Your task to perform on an android device: open app "Adobe Express: Graphic Design" (install if not already installed) Image 0: 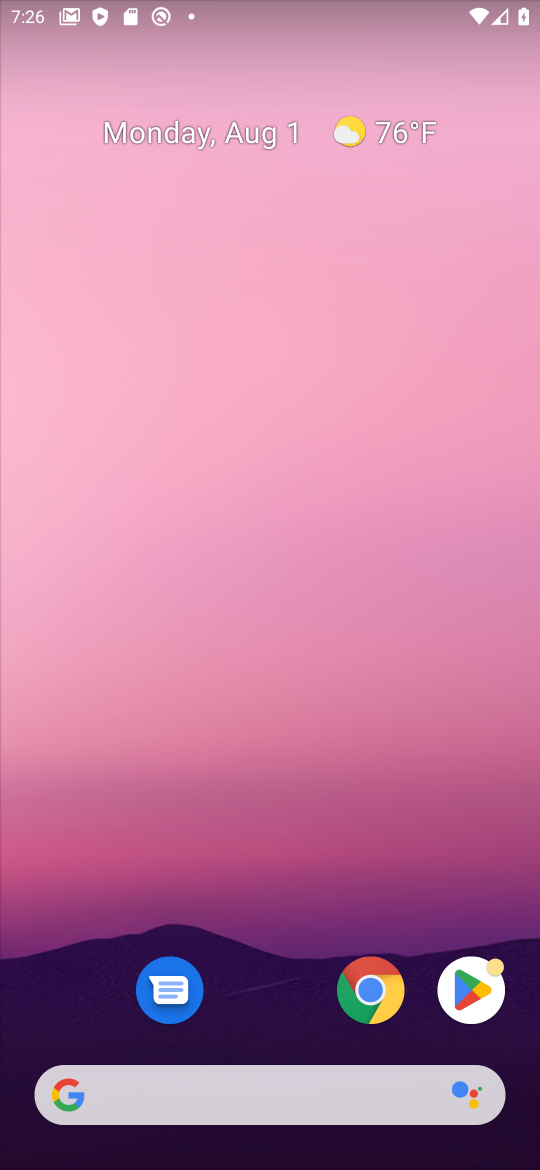
Step 0: click (470, 1012)
Your task to perform on an android device: open app "Adobe Express: Graphic Design" (install if not already installed) Image 1: 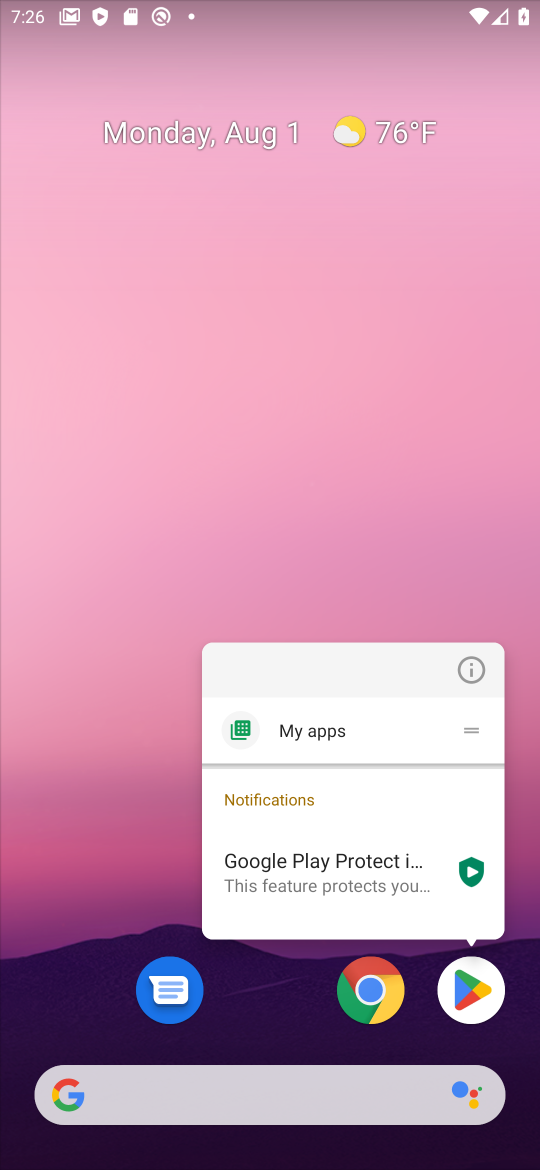
Step 1: click (467, 1007)
Your task to perform on an android device: open app "Adobe Express: Graphic Design" (install if not already installed) Image 2: 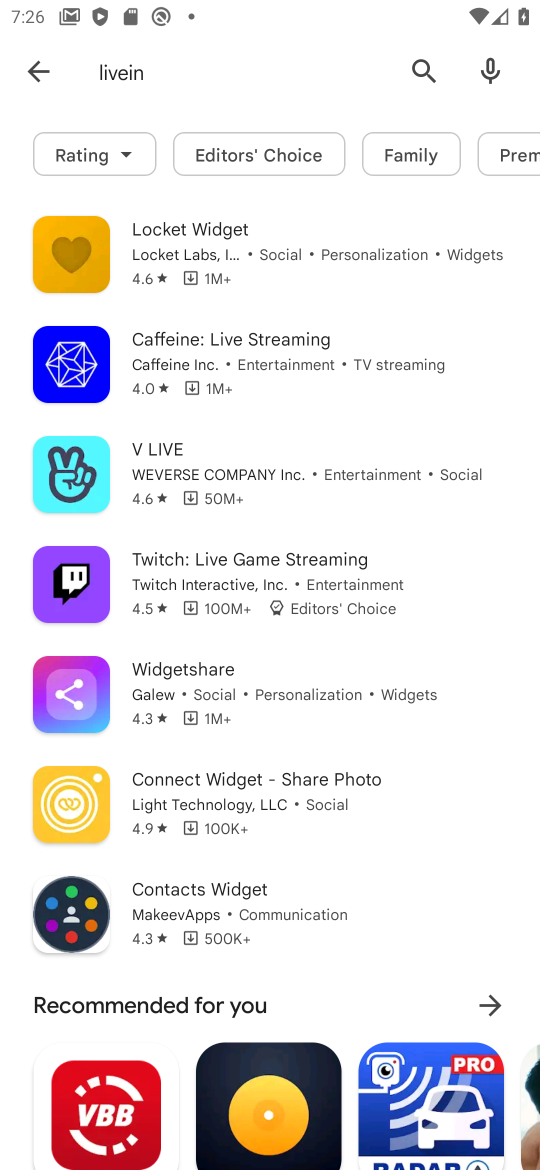
Step 2: click (421, 69)
Your task to perform on an android device: open app "Adobe Express: Graphic Design" (install if not already installed) Image 3: 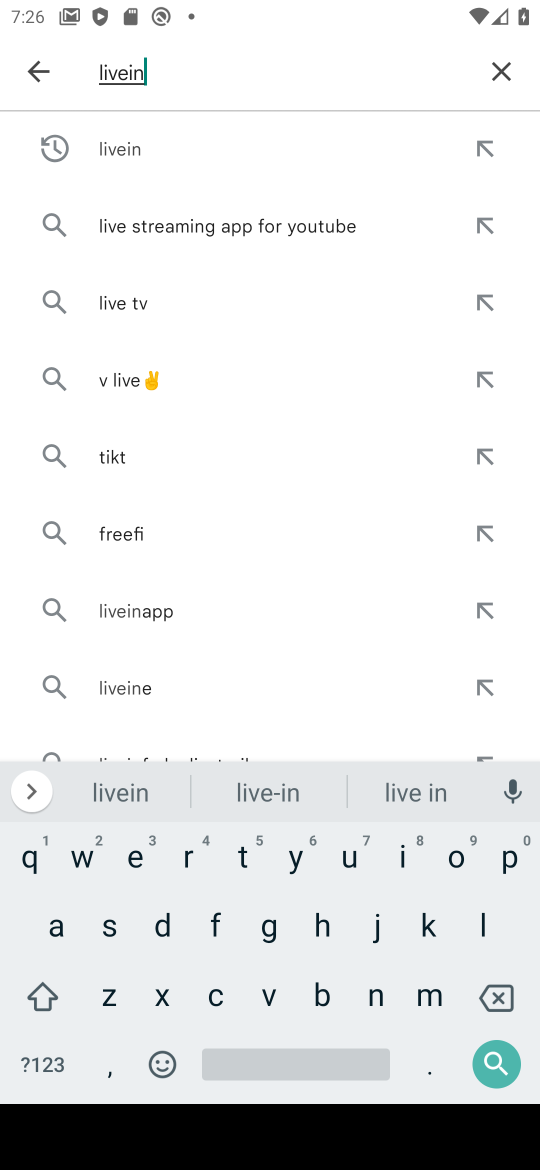
Step 3: click (495, 73)
Your task to perform on an android device: open app "Adobe Express: Graphic Design" (install if not already installed) Image 4: 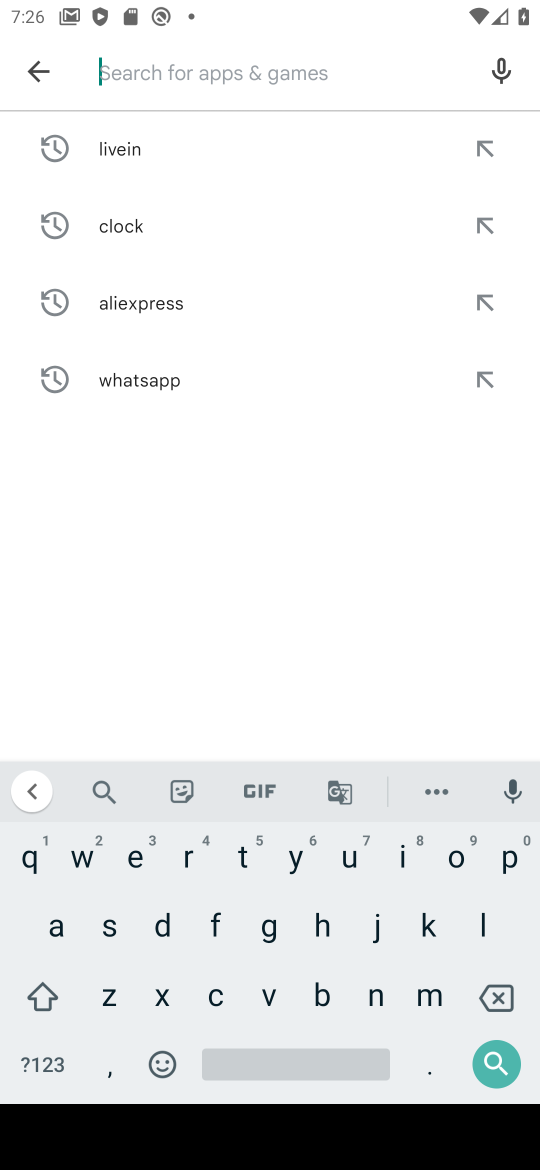
Step 4: click (297, 74)
Your task to perform on an android device: open app "Adobe Express: Graphic Design" (install if not already installed) Image 5: 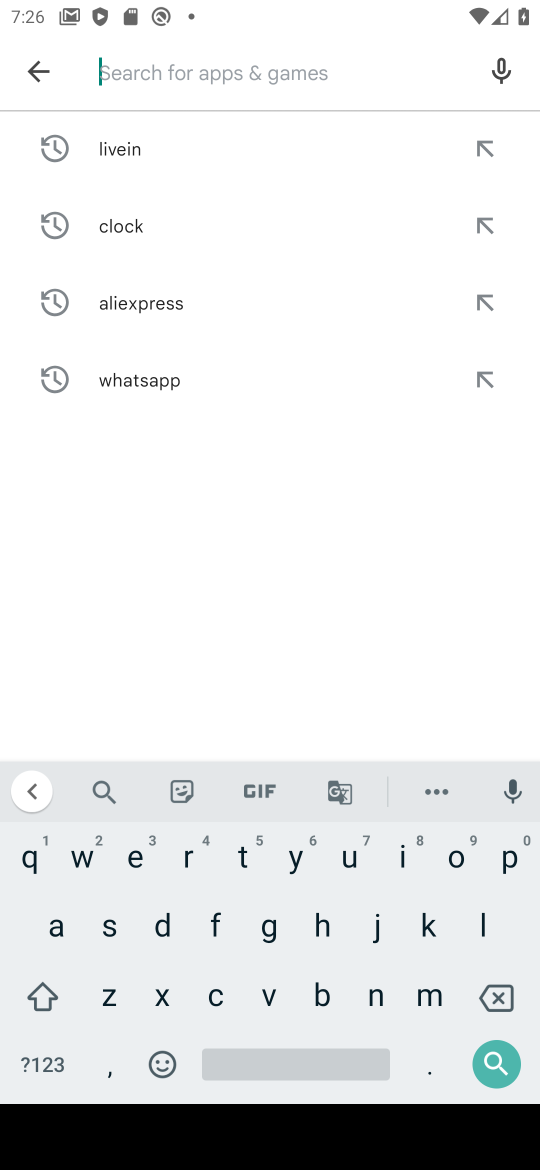
Step 5: click (56, 928)
Your task to perform on an android device: open app "Adobe Express: Graphic Design" (install if not already installed) Image 6: 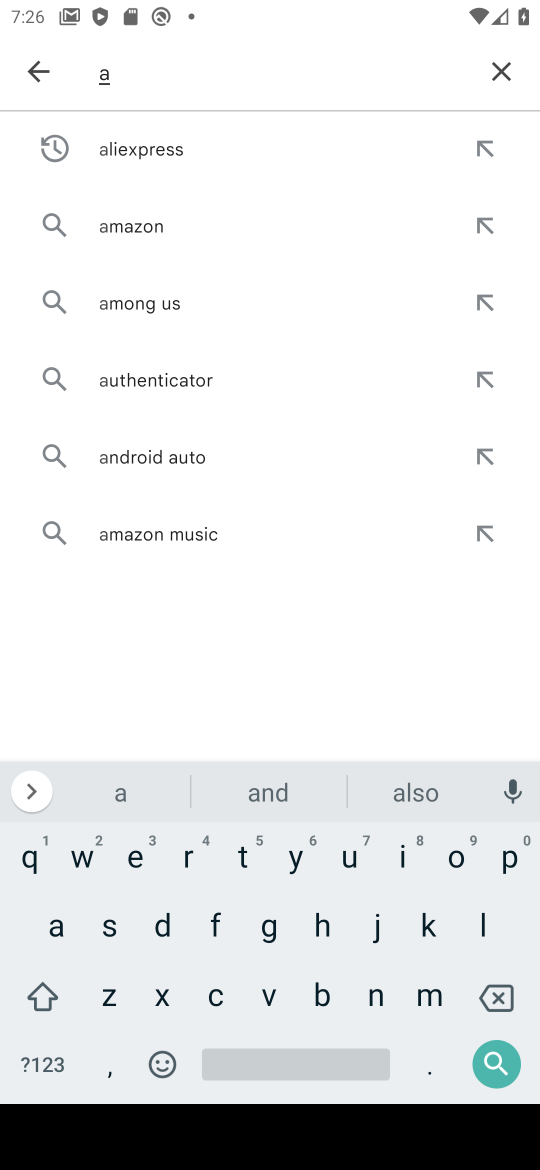
Step 6: click (162, 921)
Your task to perform on an android device: open app "Adobe Express: Graphic Design" (install if not already installed) Image 7: 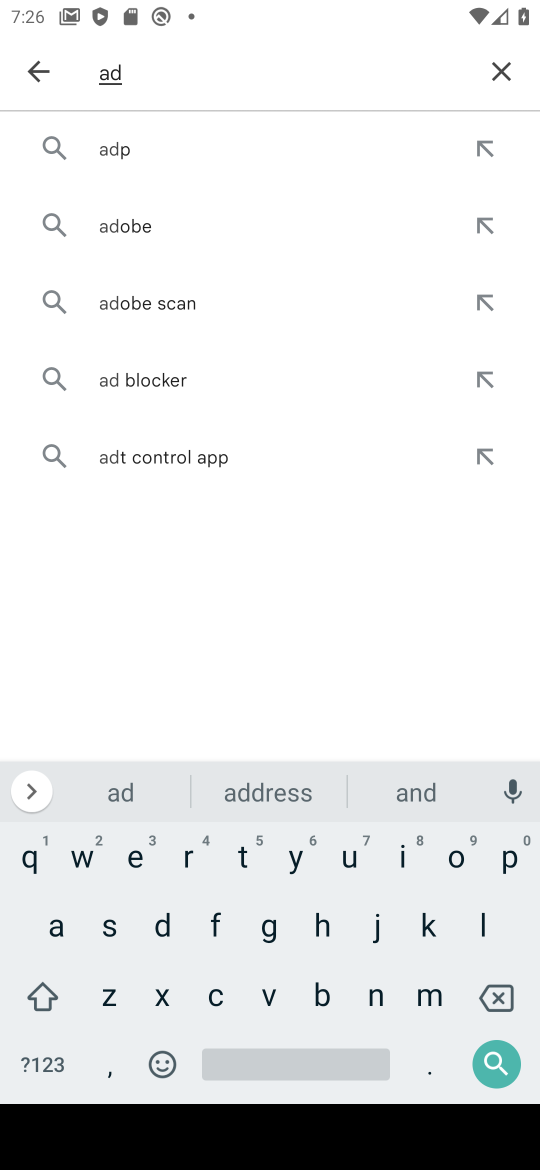
Step 7: click (438, 845)
Your task to perform on an android device: open app "Adobe Express: Graphic Design" (install if not already installed) Image 8: 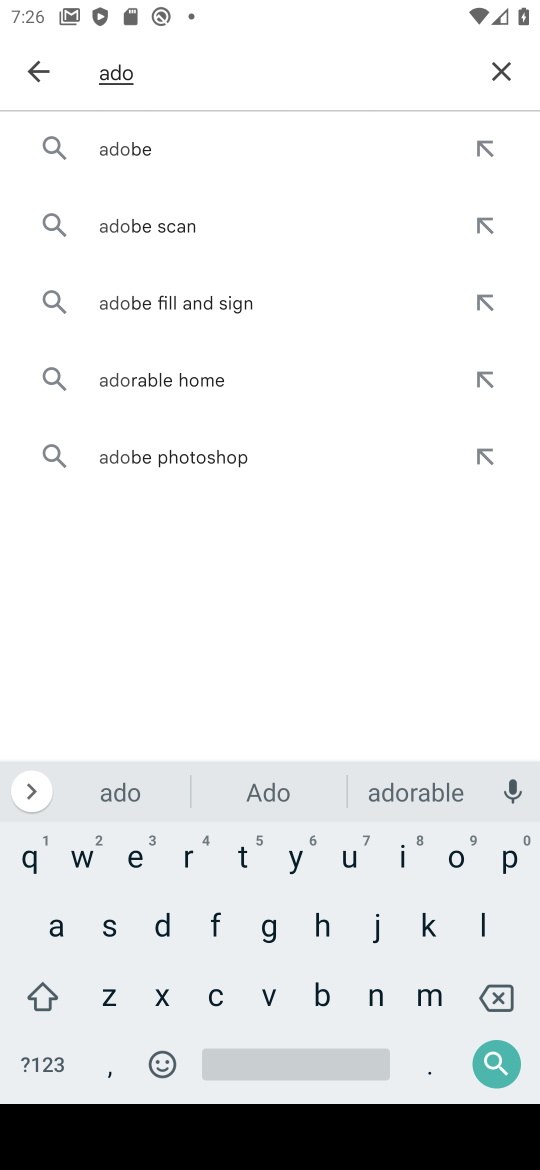
Step 8: click (147, 147)
Your task to perform on an android device: open app "Adobe Express: Graphic Design" (install if not already installed) Image 9: 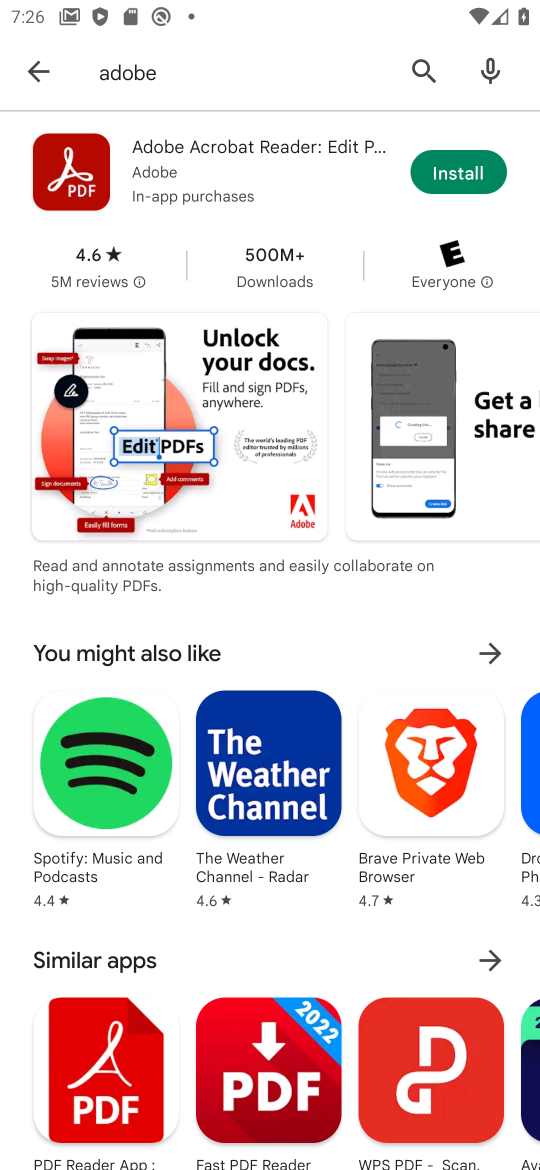
Step 9: click (445, 173)
Your task to perform on an android device: open app "Adobe Express: Graphic Design" (install if not already installed) Image 10: 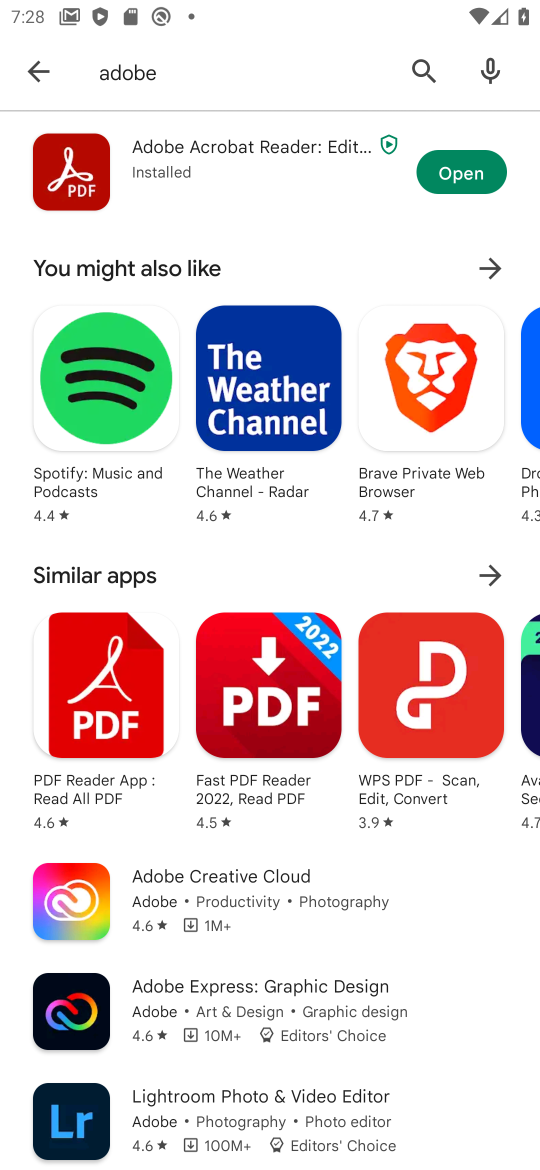
Step 10: click (451, 170)
Your task to perform on an android device: open app "Adobe Express: Graphic Design" (install if not already installed) Image 11: 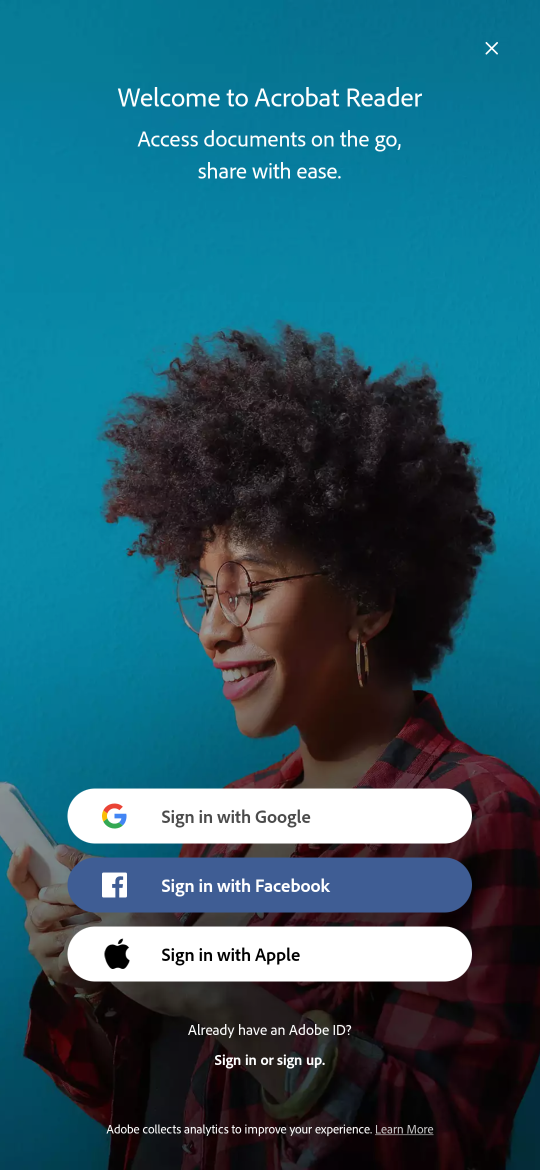
Step 11: task complete